Your task to perform on an android device: turn on bluetooth scan Image 0: 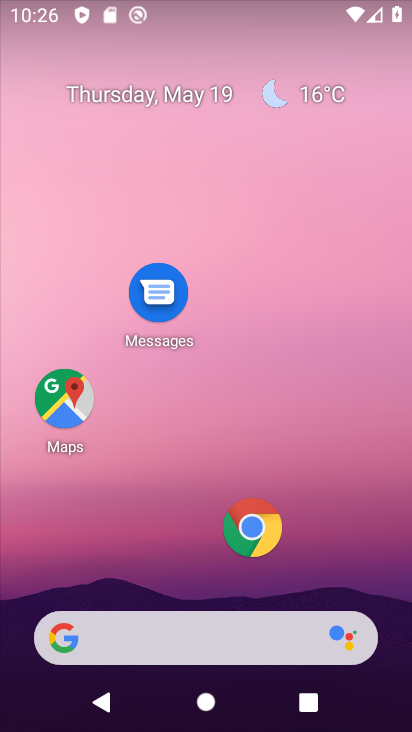
Step 0: click (245, 112)
Your task to perform on an android device: turn on bluetooth scan Image 1: 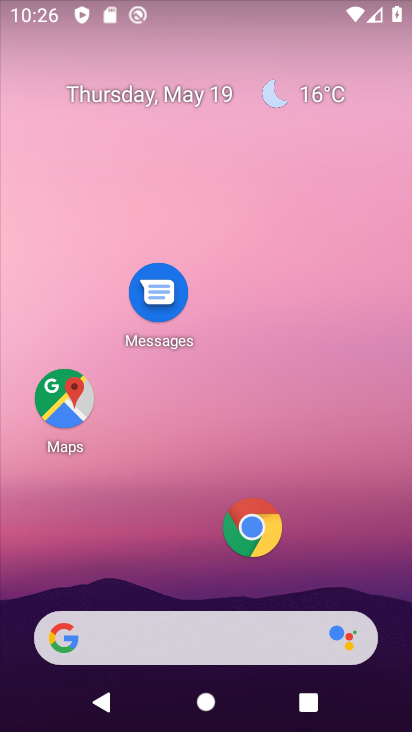
Step 1: drag from (222, 437) to (252, 217)
Your task to perform on an android device: turn on bluetooth scan Image 2: 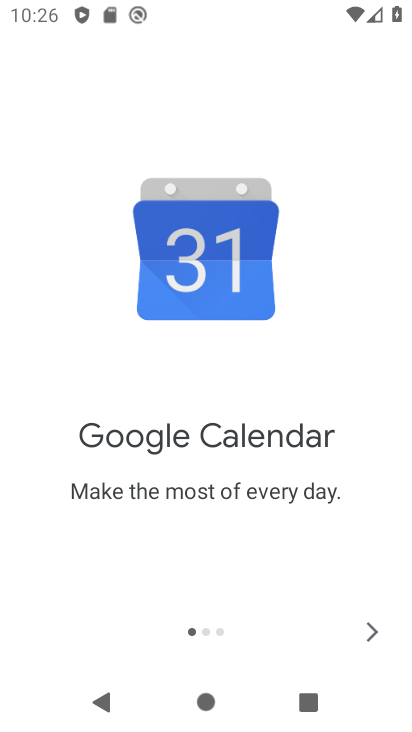
Step 2: press home button
Your task to perform on an android device: turn on bluetooth scan Image 3: 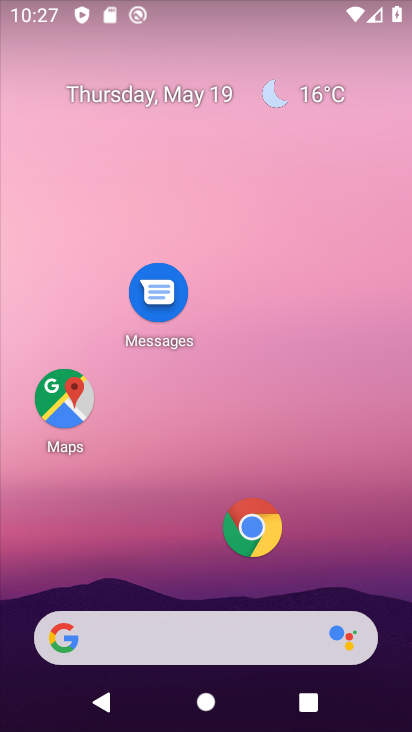
Step 3: drag from (233, 608) to (229, 257)
Your task to perform on an android device: turn on bluetooth scan Image 4: 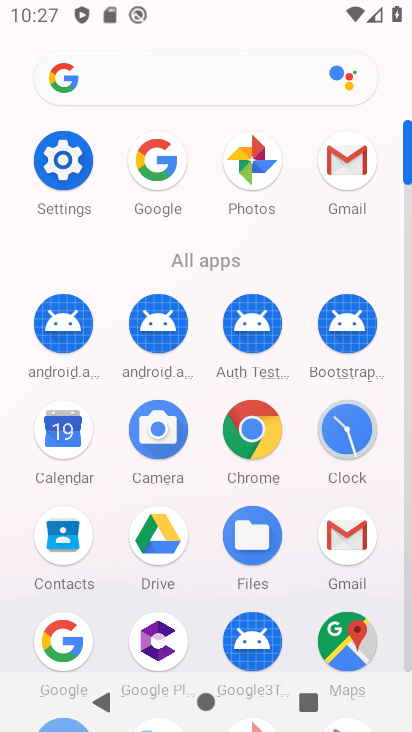
Step 4: click (69, 155)
Your task to perform on an android device: turn on bluetooth scan Image 5: 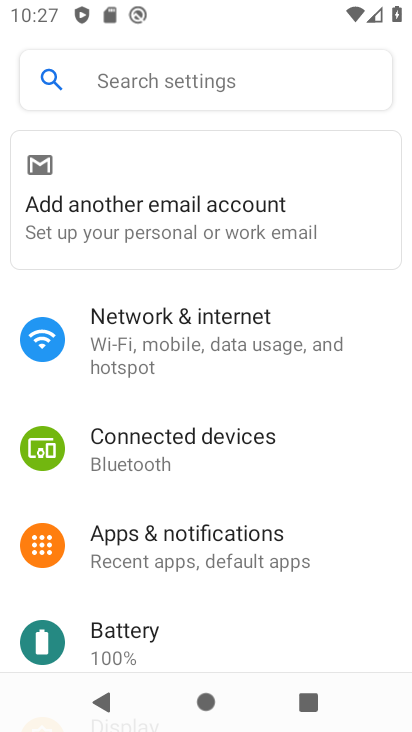
Step 5: drag from (158, 649) to (172, 316)
Your task to perform on an android device: turn on bluetooth scan Image 6: 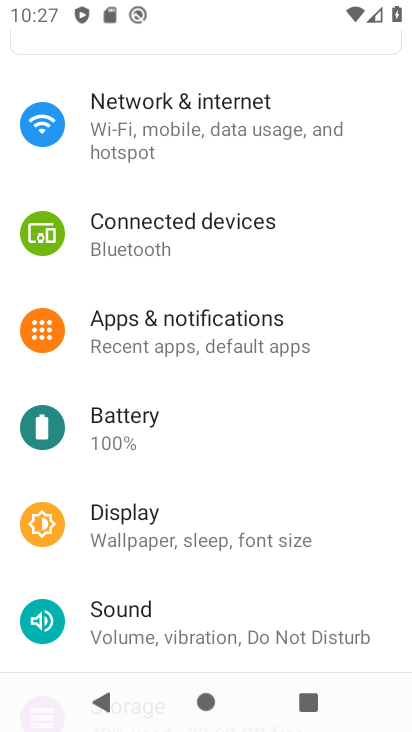
Step 6: drag from (167, 637) to (156, 369)
Your task to perform on an android device: turn on bluetooth scan Image 7: 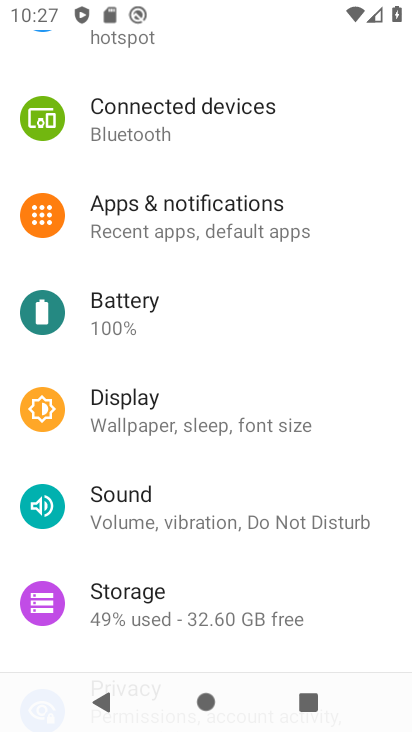
Step 7: drag from (177, 589) to (168, 319)
Your task to perform on an android device: turn on bluetooth scan Image 8: 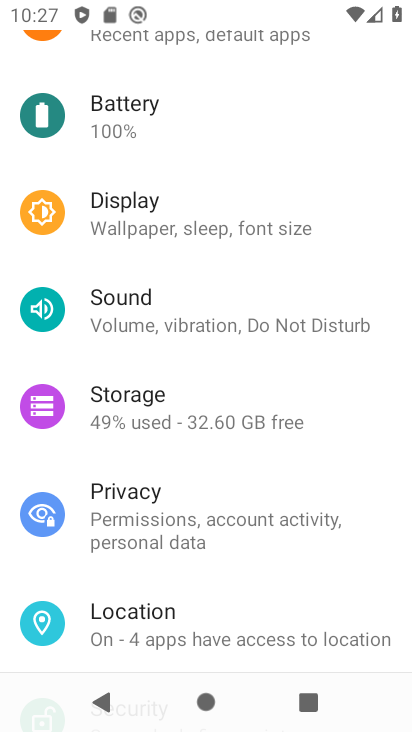
Step 8: drag from (170, 655) to (189, 423)
Your task to perform on an android device: turn on bluetooth scan Image 9: 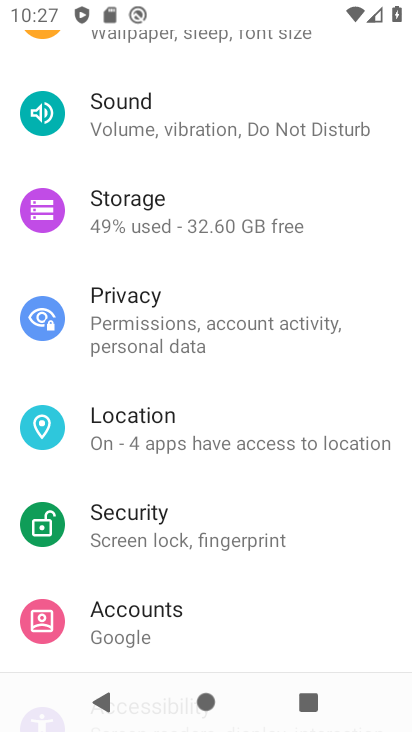
Step 9: drag from (187, 629) to (183, 380)
Your task to perform on an android device: turn on bluetooth scan Image 10: 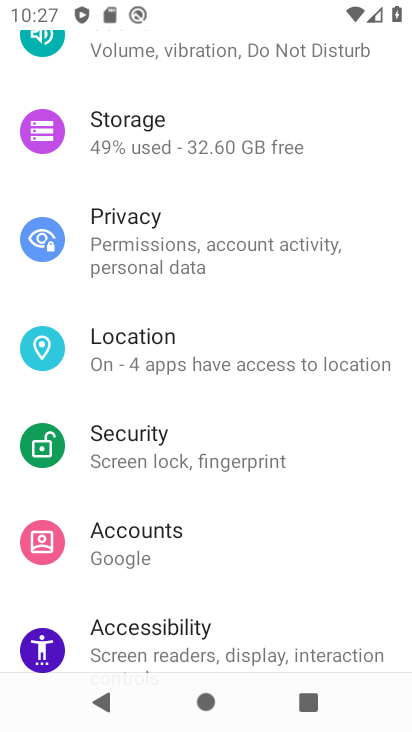
Step 10: drag from (185, 526) to (196, 374)
Your task to perform on an android device: turn on bluetooth scan Image 11: 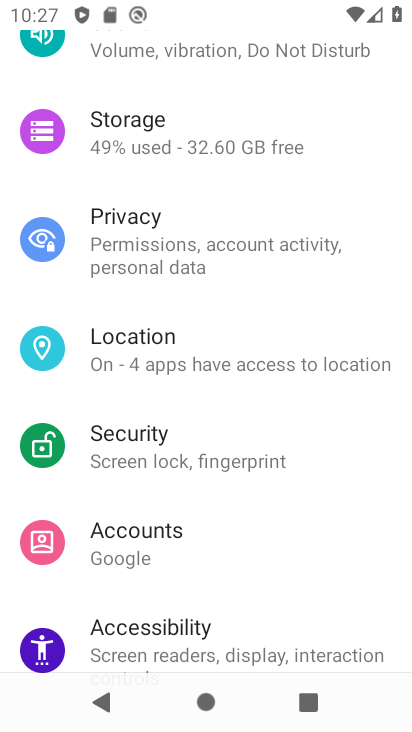
Step 11: click (144, 349)
Your task to perform on an android device: turn on bluetooth scan Image 12: 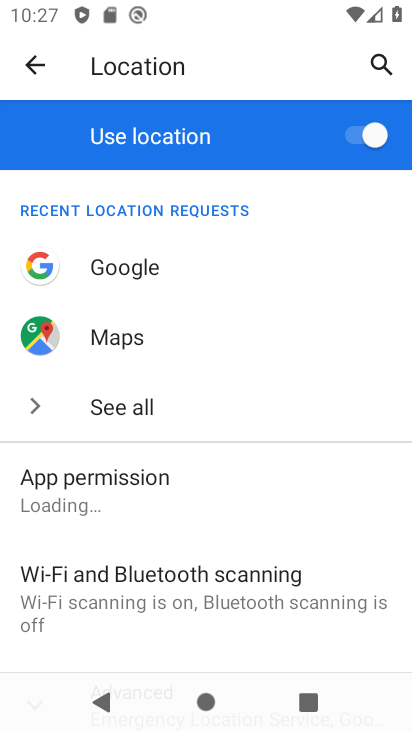
Step 12: drag from (178, 514) to (181, 362)
Your task to perform on an android device: turn on bluetooth scan Image 13: 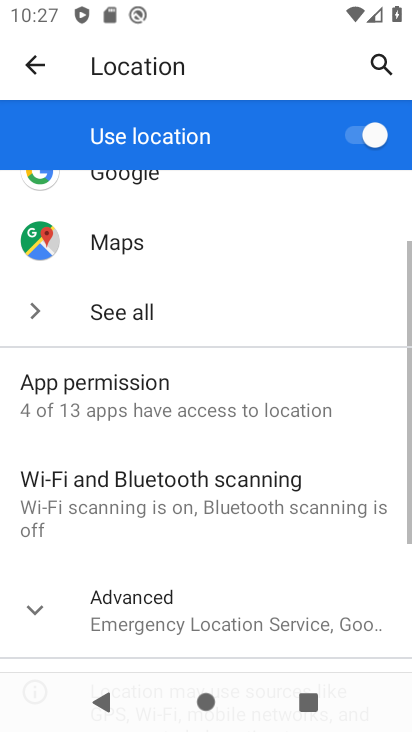
Step 13: click (158, 508)
Your task to perform on an android device: turn on bluetooth scan Image 14: 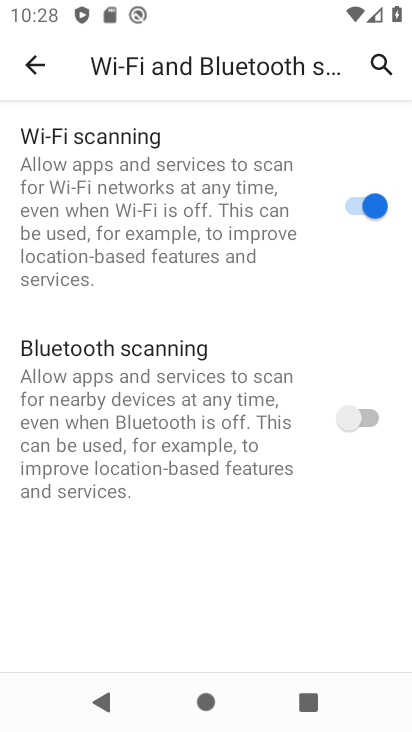
Step 14: click (373, 416)
Your task to perform on an android device: turn on bluetooth scan Image 15: 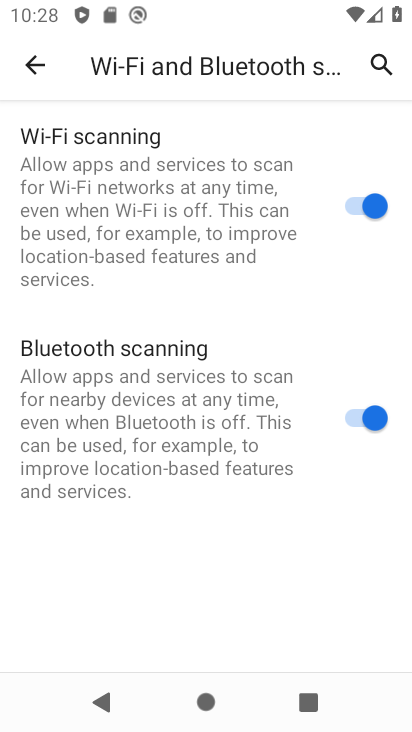
Step 15: task complete